Your task to perform on an android device: Go to ESPN.com Image 0: 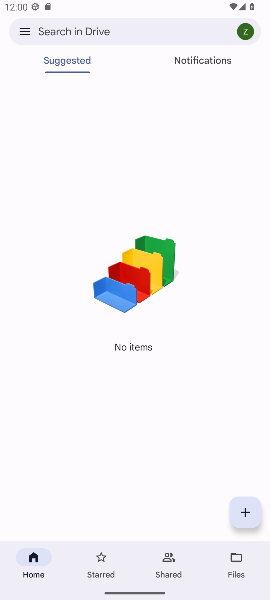
Step 0: press home button
Your task to perform on an android device: Go to ESPN.com Image 1: 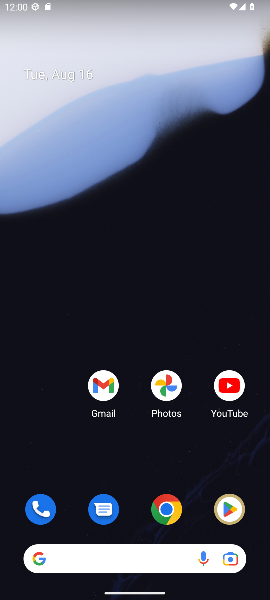
Step 1: drag from (130, 517) to (232, 71)
Your task to perform on an android device: Go to ESPN.com Image 2: 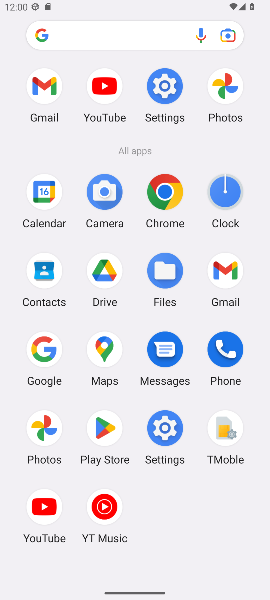
Step 2: click (36, 344)
Your task to perform on an android device: Go to ESPN.com Image 3: 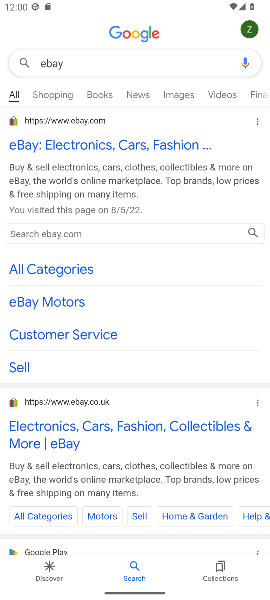
Step 3: press back button
Your task to perform on an android device: Go to ESPN.com Image 4: 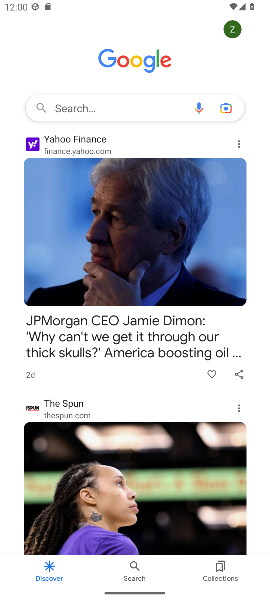
Step 4: click (86, 105)
Your task to perform on an android device: Go to ESPN.com Image 5: 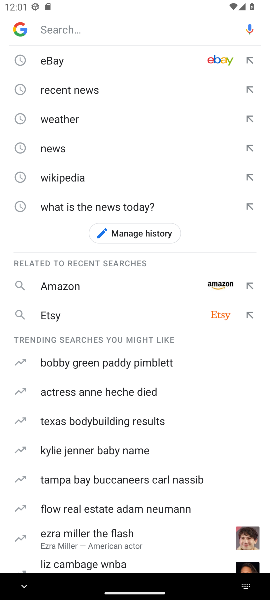
Step 5: type "ESPN.com"
Your task to perform on an android device: Go to ESPN.com Image 6: 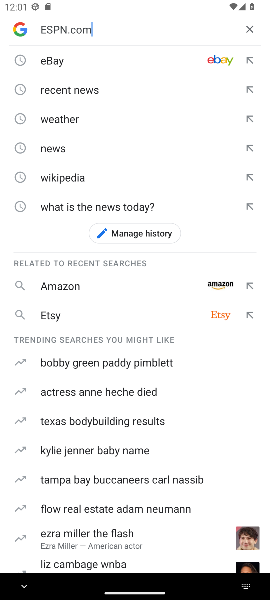
Step 6: press enter
Your task to perform on an android device: Go to ESPN.com Image 7: 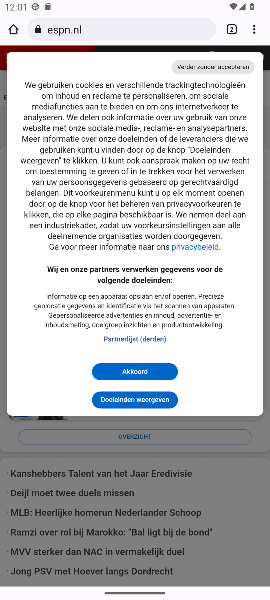
Step 7: click (125, 370)
Your task to perform on an android device: Go to ESPN.com Image 8: 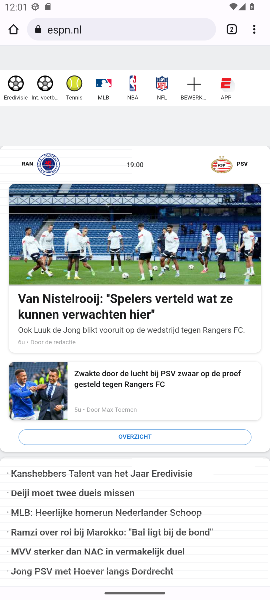
Step 8: task complete